Your task to perform on an android device: open chrome privacy settings Image 0: 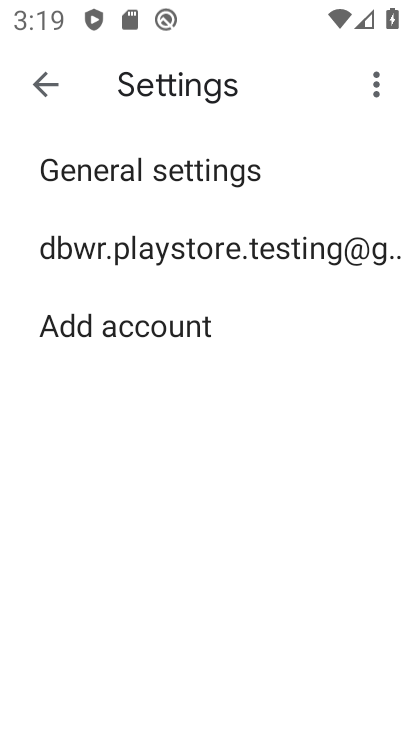
Step 0: press home button
Your task to perform on an android device: open chrome privacy settings Image 1: 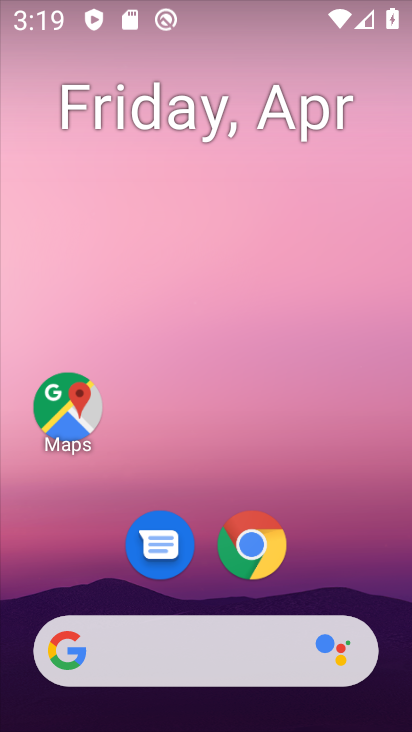
Step 1: click (251, 545)
Your task to perform on an android device: open chrome privacy settings Image 2: 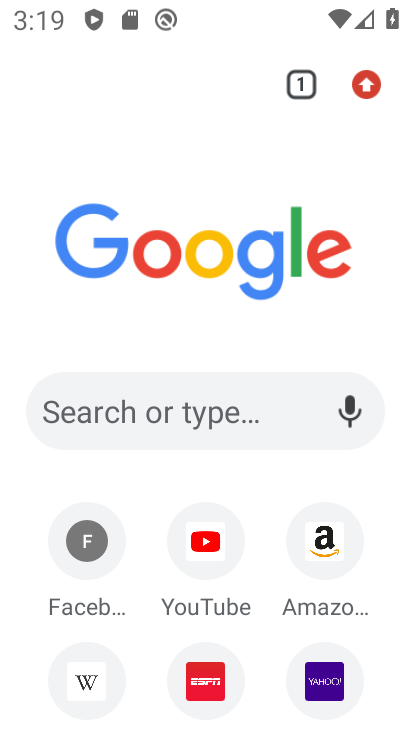
Step 2: click (364, 84)
Your task to perform on an android device: open chrome privacy settings Image 3: 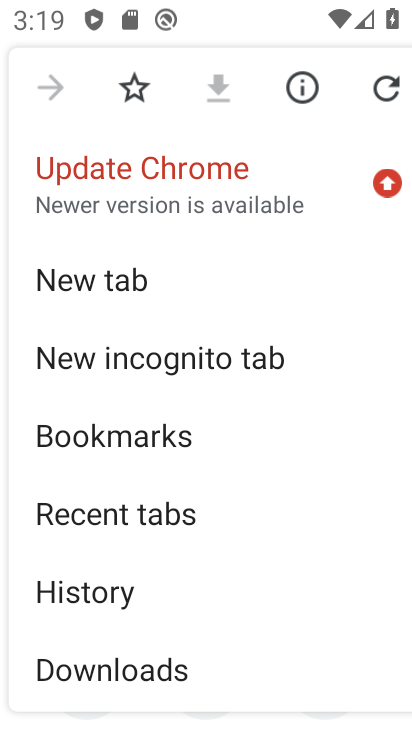
Step 3: drag from (277, 633) to (312, 225)
Your task to perform on an android device: open chrome privacy settings Image 4: 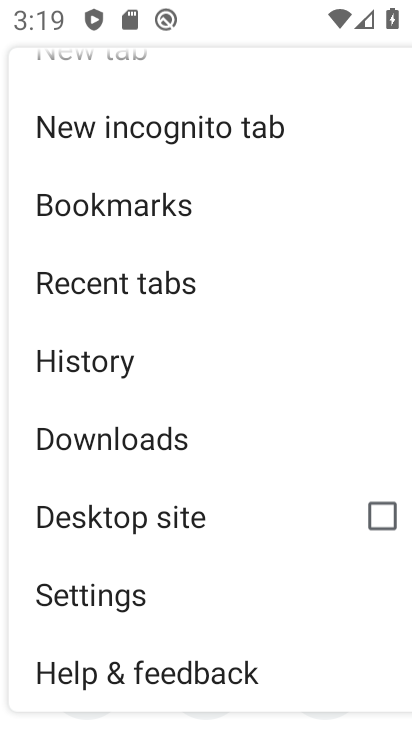
Step 4: click (90, 595)
Your task to perform on an android device: open chrome privacy settings Image 5: 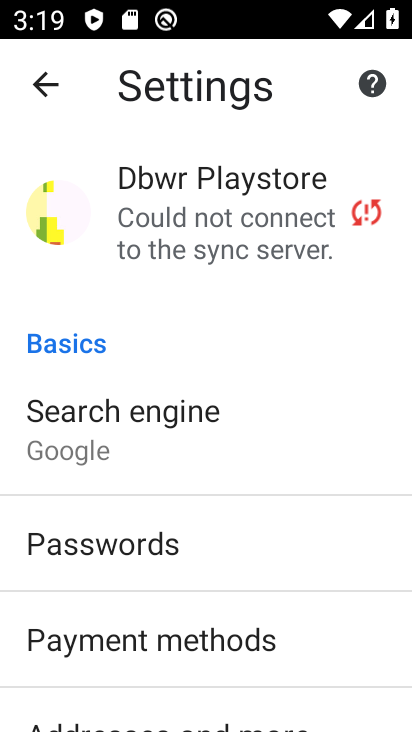
Step 5: drag from (296, 645) to (268, 282)
Your task to perform on an android device: open chrome privacy settings Image 6: 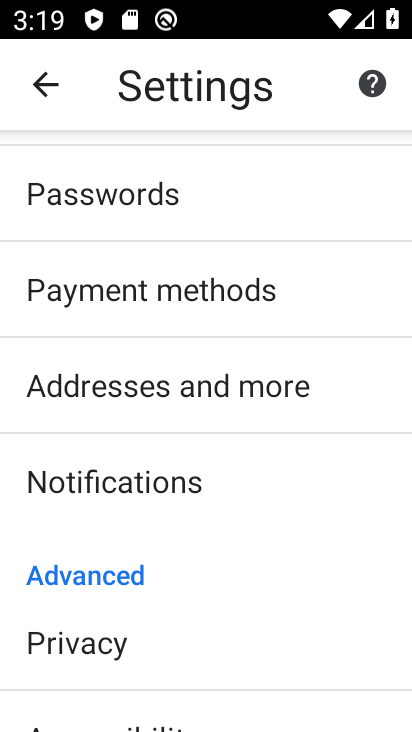
Step 6: click (57, 663)
Your task to perform on an android device: open chrome privacy settings Image 7: 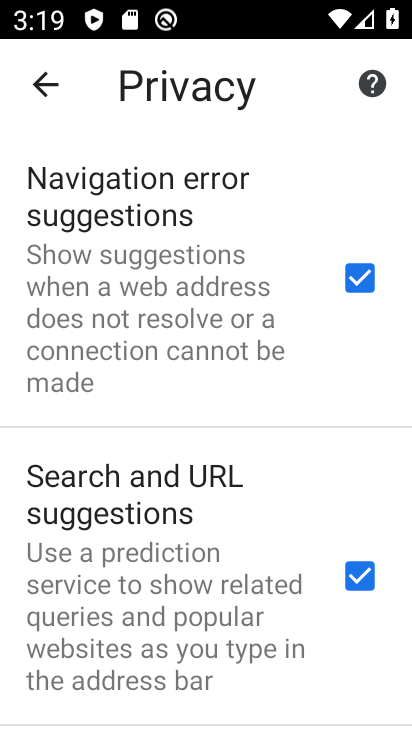
Step 7: task complete